Your task to perform on an android device: delete the emails in spam in the gmail app Image 0: 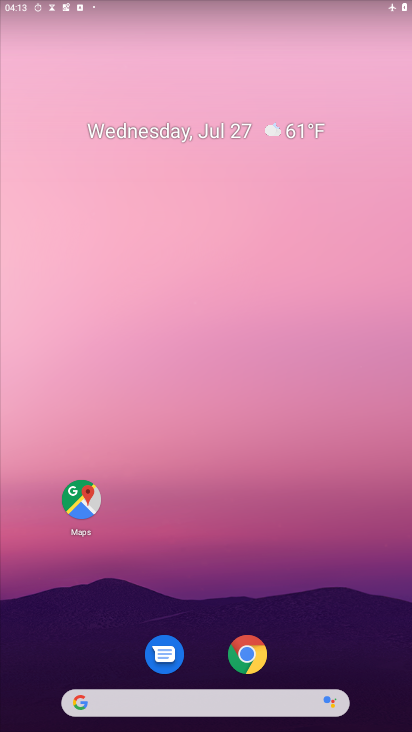
Step 0: drag from (270, 695) to (384, 2)
Your task to perform on an android device: delete the emails in spam in the gmail app Image 1: 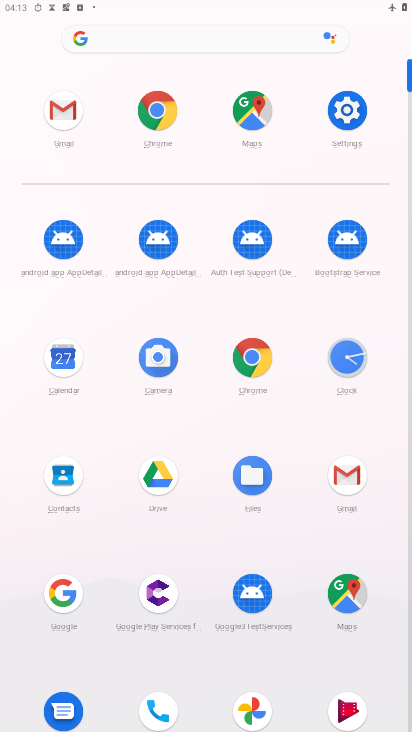
Step 1: click (342, 468)
Your task to perform on an android device: delete the emails in spam in the gmail app Image 2: 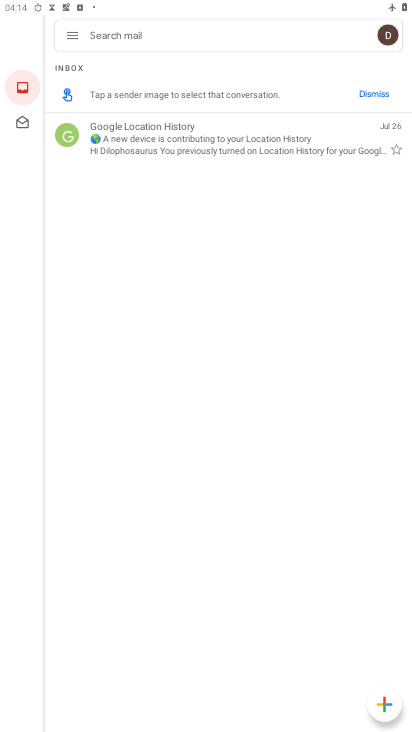
Step 2: click (70, 29)
Your task to perform on an android device: delete the emails in spam in the gmail app Image 3: 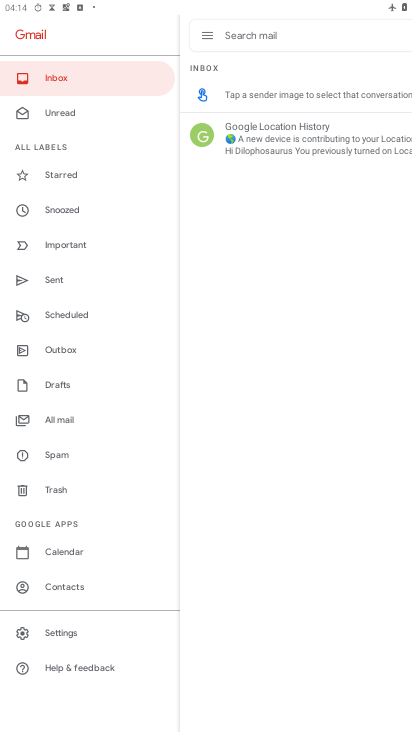
Step 3: click (80, 447)
Your task to perform on an android device: delete the emails in spam in the gmail app Image 4: 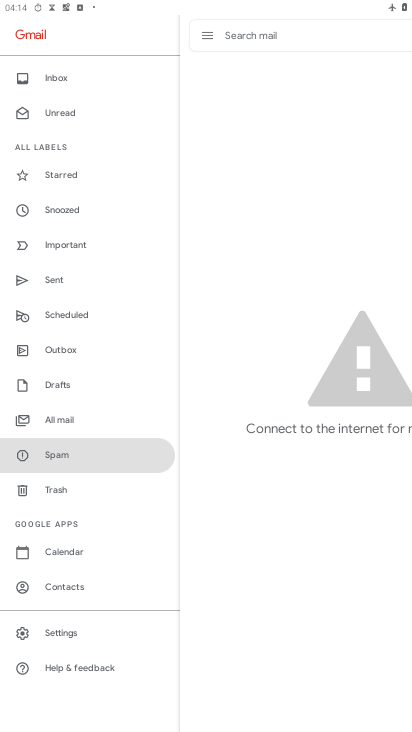
Step 4: task complete